Your task to perform on an android device: Search for "usb-a" on newegg.com, select the first entry, and add it to the cart. Image 0: 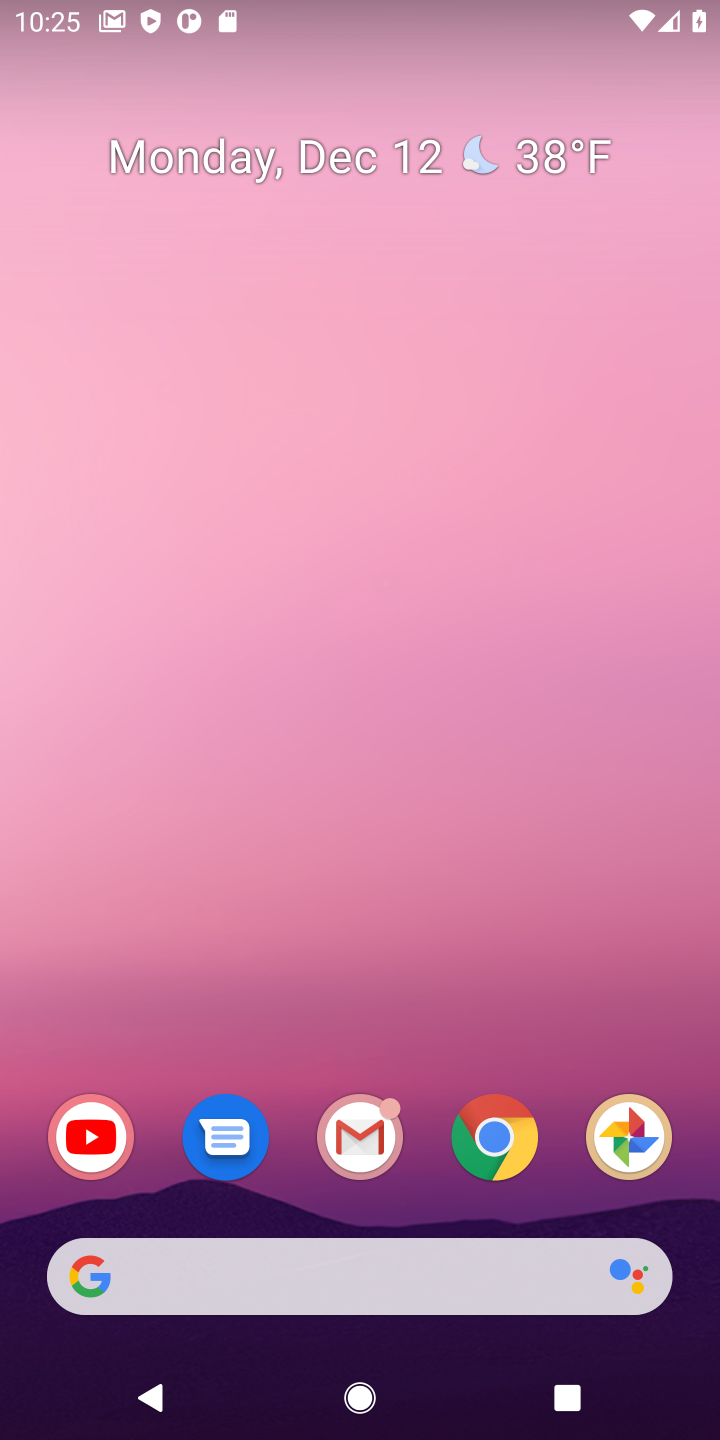
Step 0: click (308, 1293)
Your task to perform on an android device: Search for "usb-a" on newegg.com, select the first entry, and add it to the cart. Image 1: 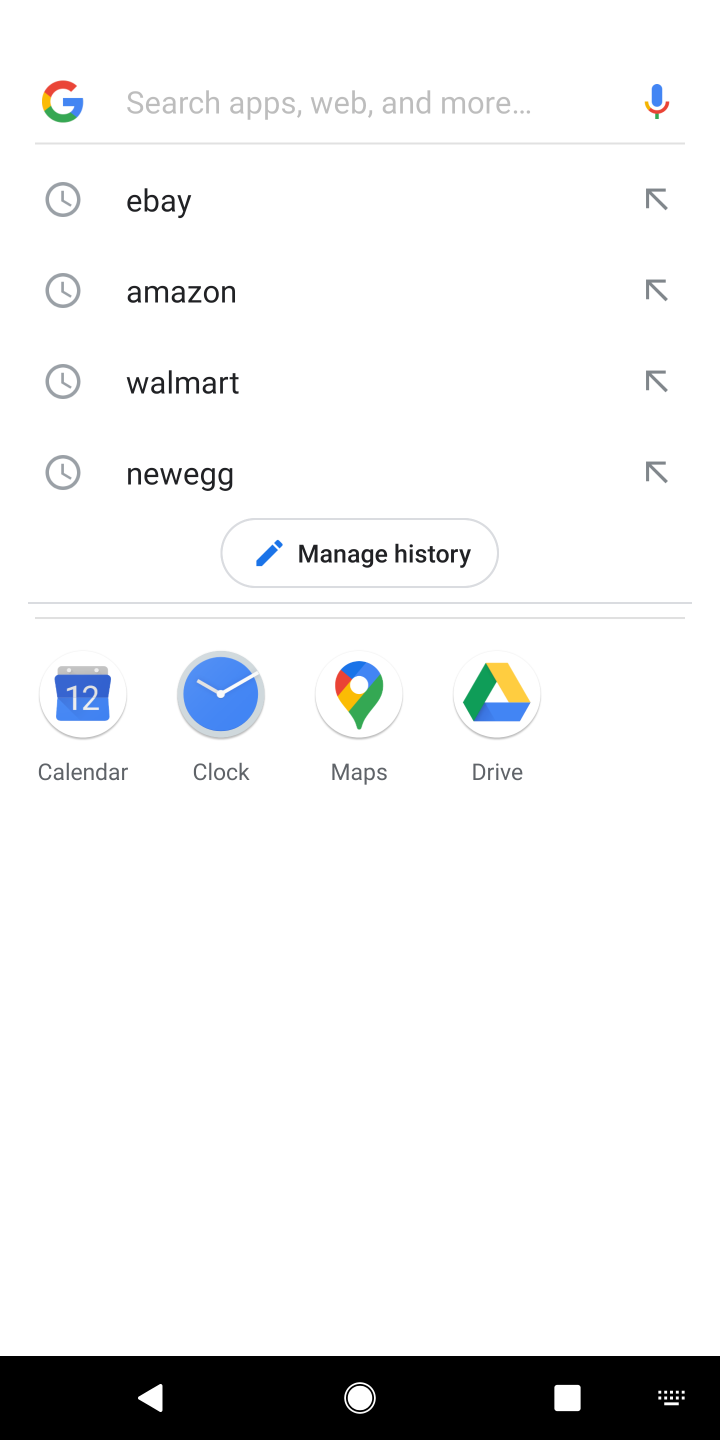
Step 1: type "newegg"
Your task to perform on an android device: Search for "usb-a" on newegg.com, select the first entry, and add it to the cart. Image 2: 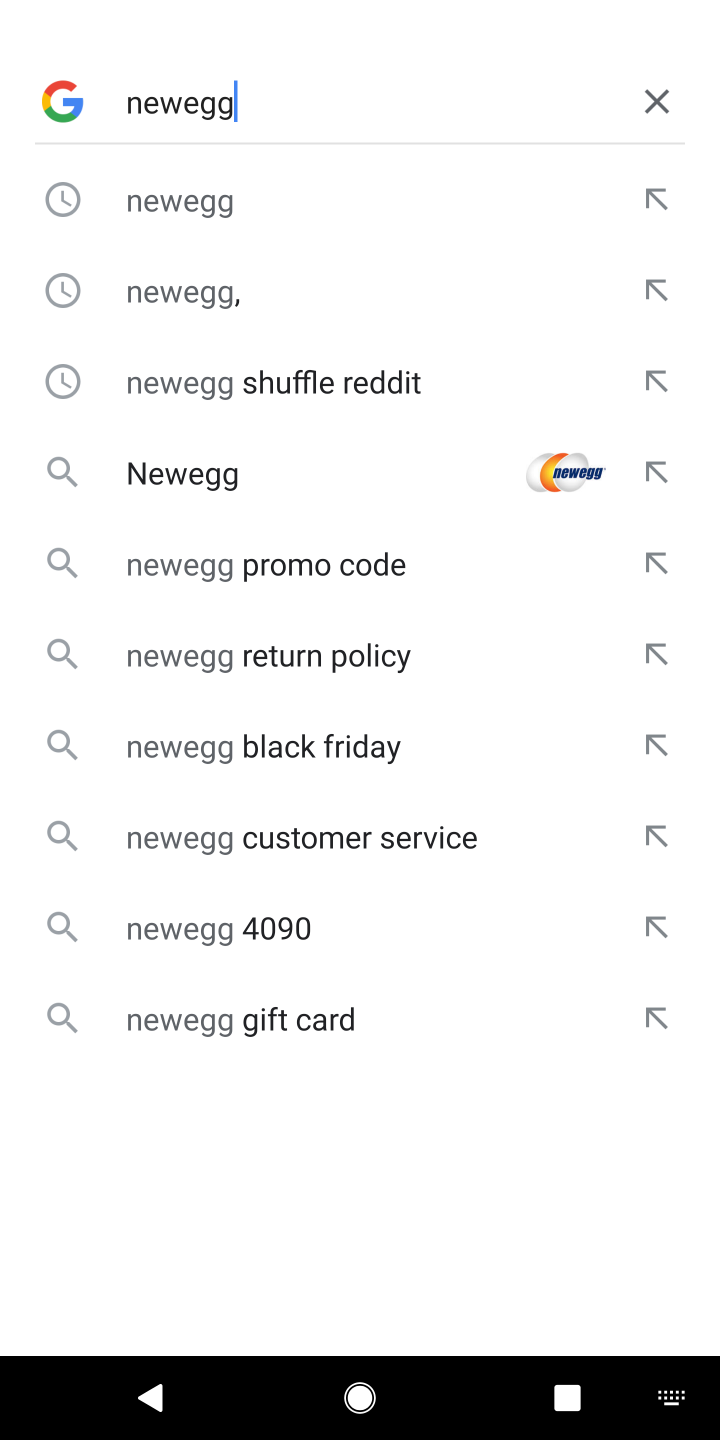
Step 2: click (225, 492)
Your task to perform on an android device: Search for "usb-a" on newegg.com, select the first entry, and add it to the cart. Image 3: 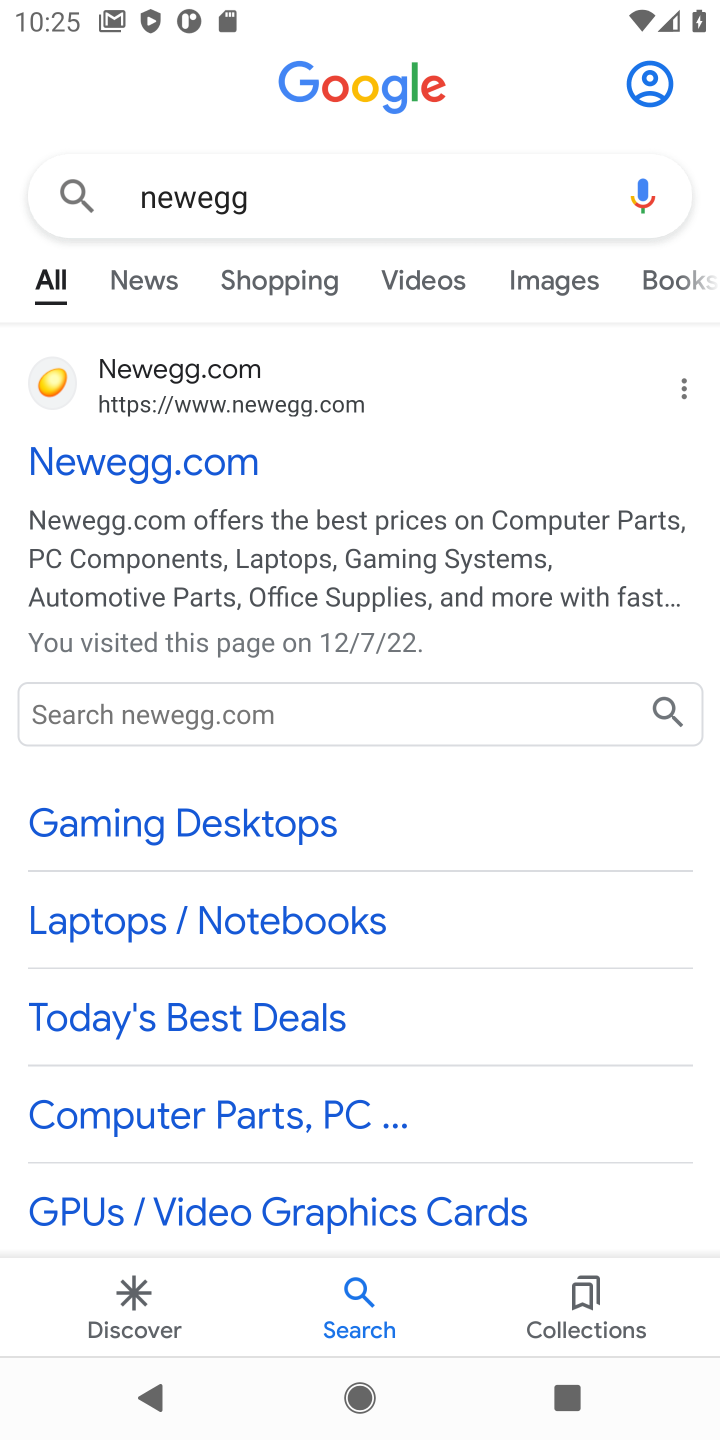
Step 3: click (225, 492)
Your task to perform on an android device: Search for "usb-a" on newegg.com, select the first entry, and add it to the cart. Image 4: 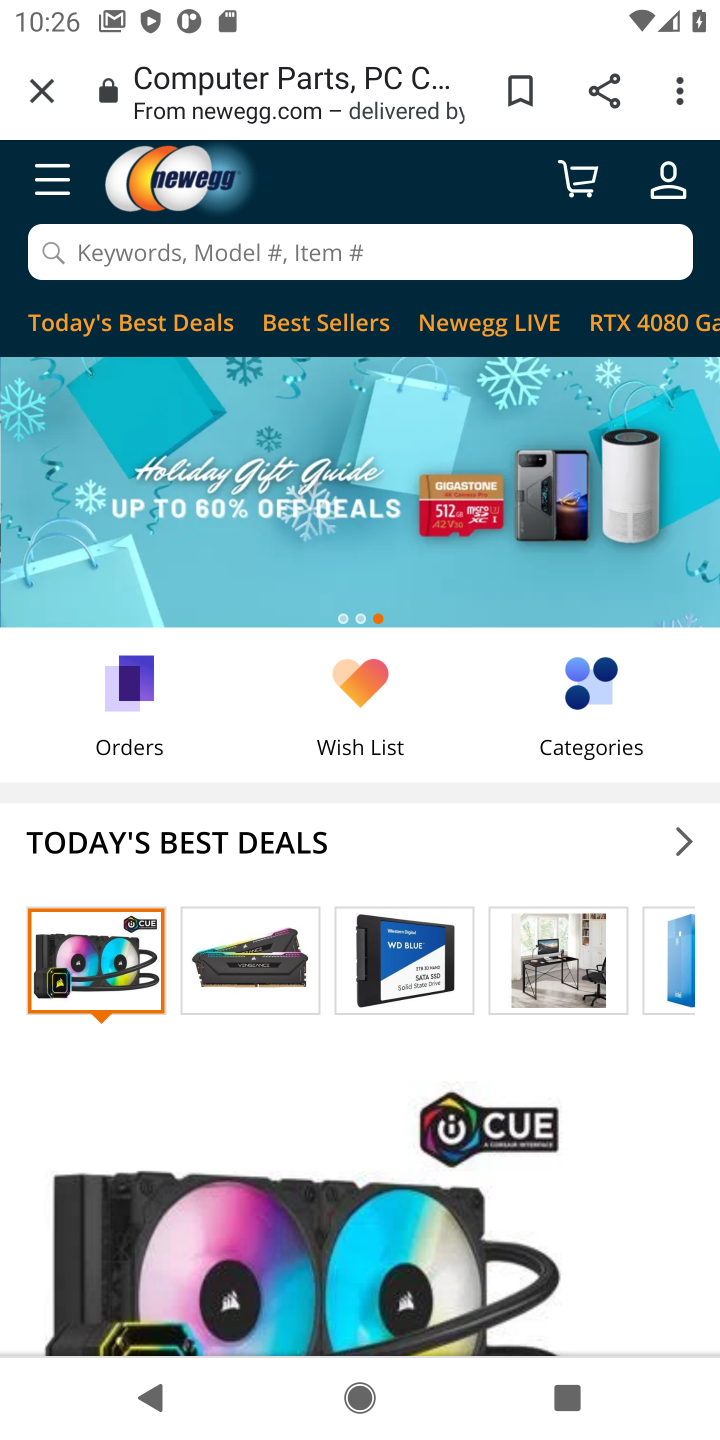
Step 4: click (181, 262)
Your task to perform on an android device: Search for "usb-a" on newegg.com, select the first entry, and add it to the cart. Image 5: 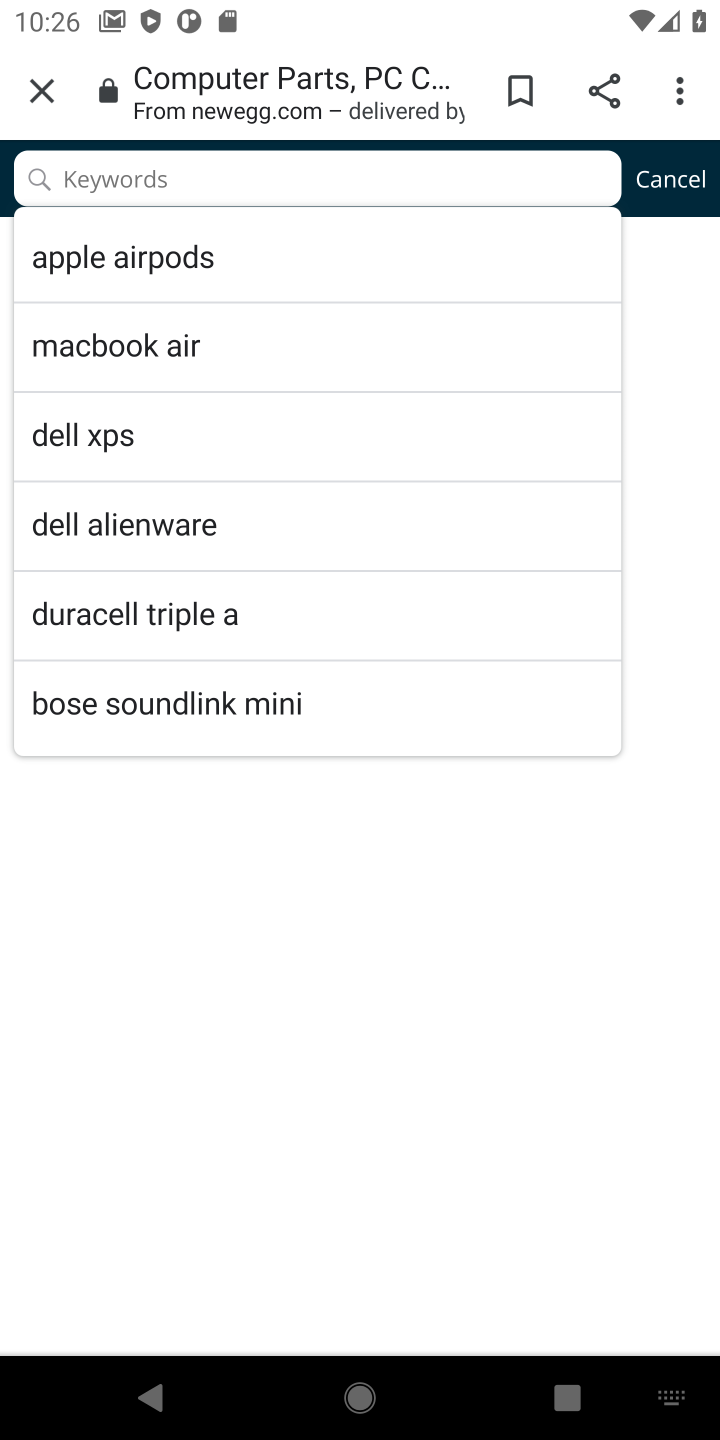
Step 5: type "usb-a"
Your task to perform on an android device: Search for "usb-a" on newegg.com, select the first entry, and add it to the cart. Image 6: 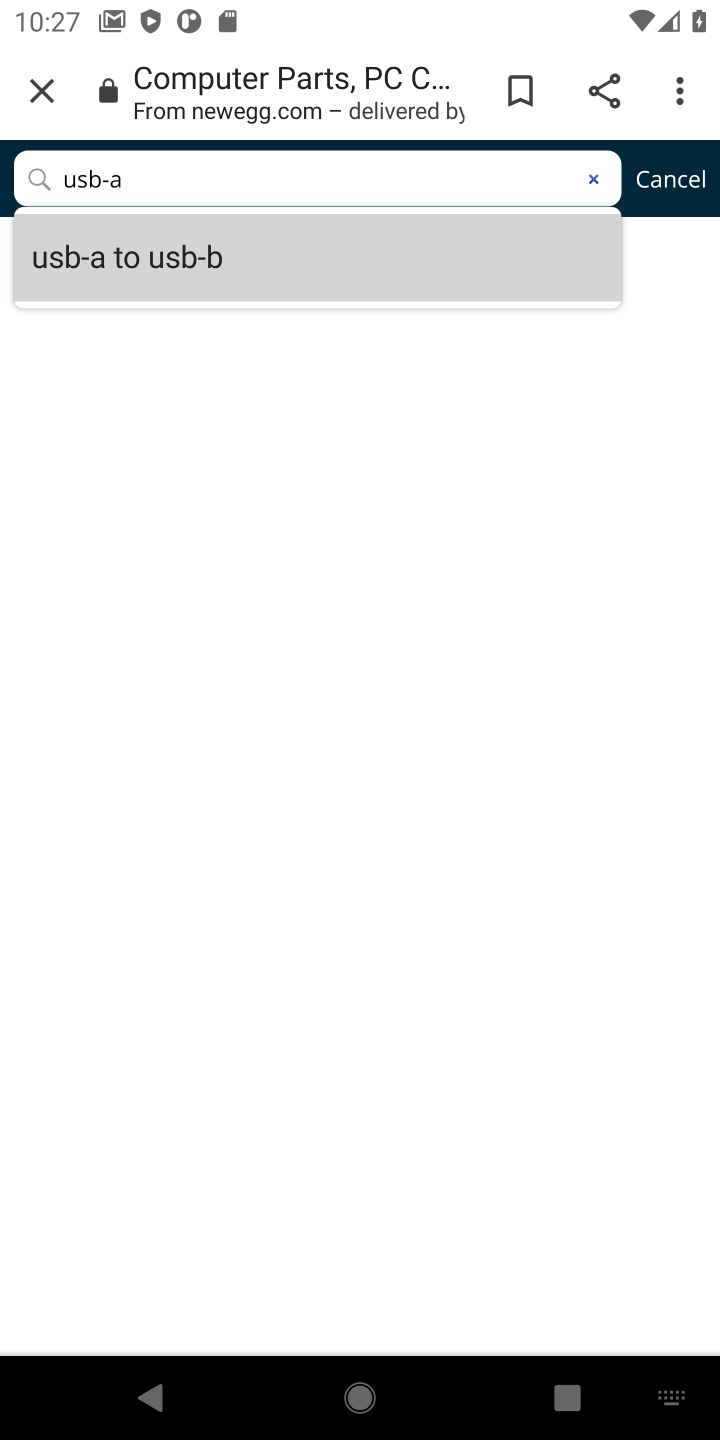
Step 6: task complete